Your task to perform on an android device: open chrome and create a bookmark for the current page Image 0: 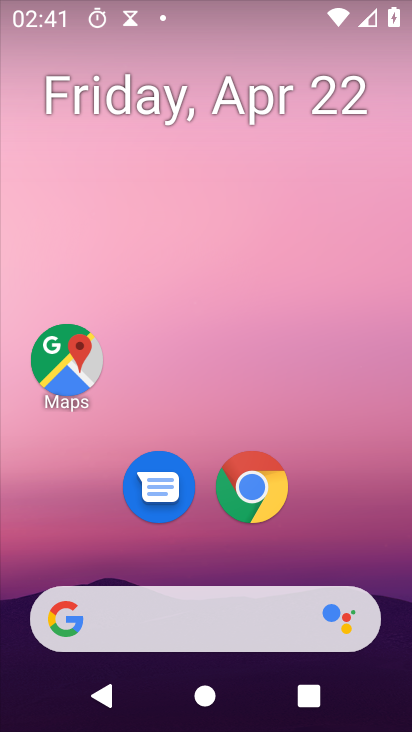
Step 0: drag from (194, 533) to (296, 113)
Your task to perform on an android device: open chrome and create a bookmark for the current page Image 1: 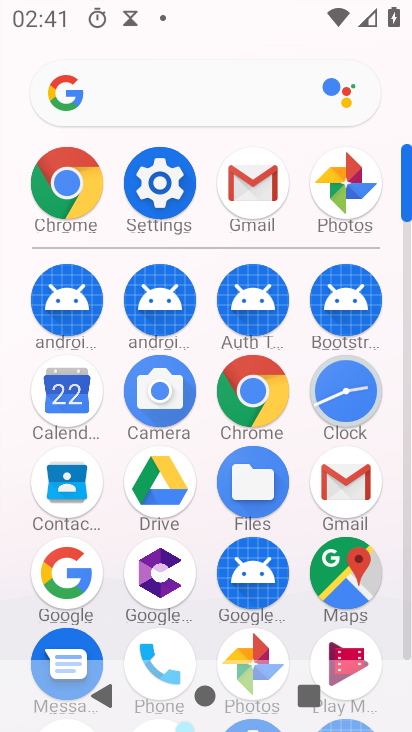
Step 1: click (252, 399)
Your task to perform on an android device: open chrome and create a bookmark for the current page Image 2: 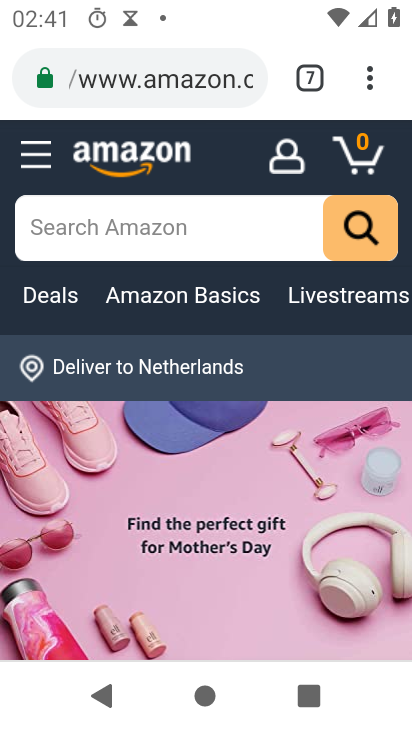
Step 2: click (365, 91)
Your task to perform on an android device: open chrome and create a bookmark for the current page Image 3: 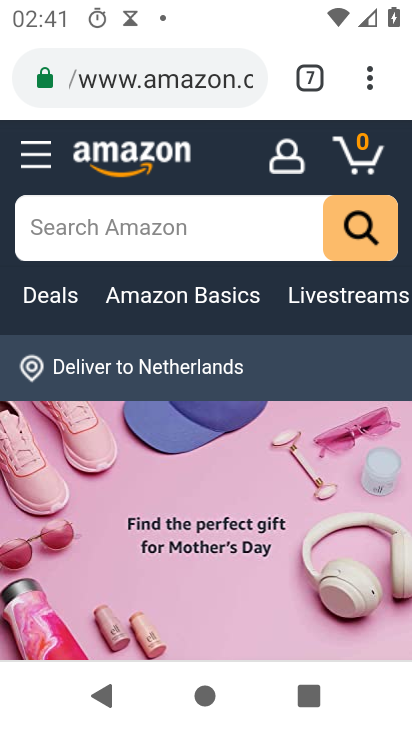
Step 3: click (356, 97)
Your task to perform on an android device: open chrome and create a bookmark for the current page Image 4: 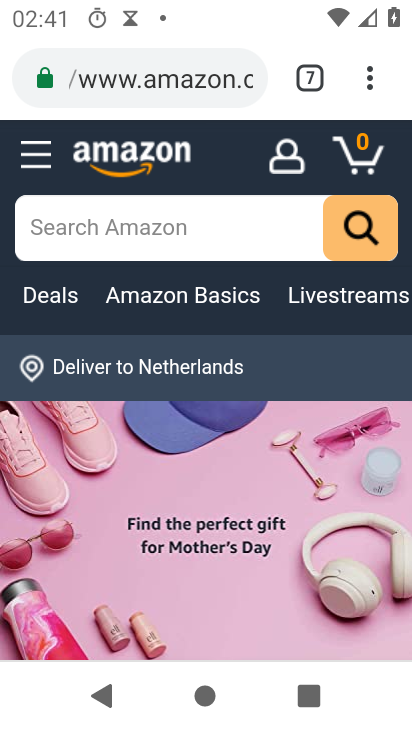
Step 4: click (362, 89)
Your task to perform on an android device: open chrome and create a bookmark for the current page Image 5: 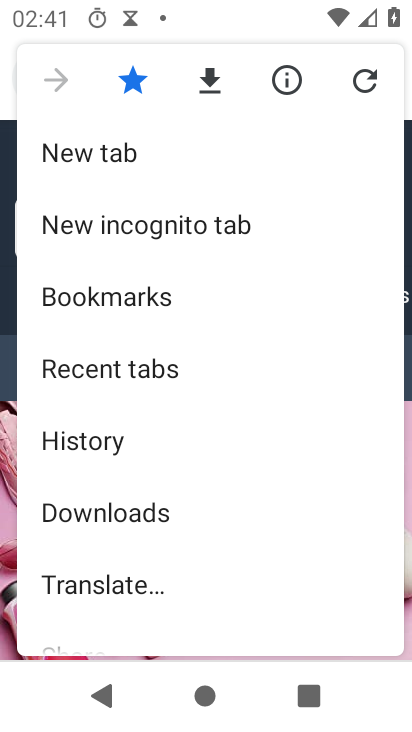
Step 5: task complete